Your task to perform on an android device: Show the shopping cart on costco. Search for "macbook" on costco, select the first entry, and add it to the cart. Image 0: 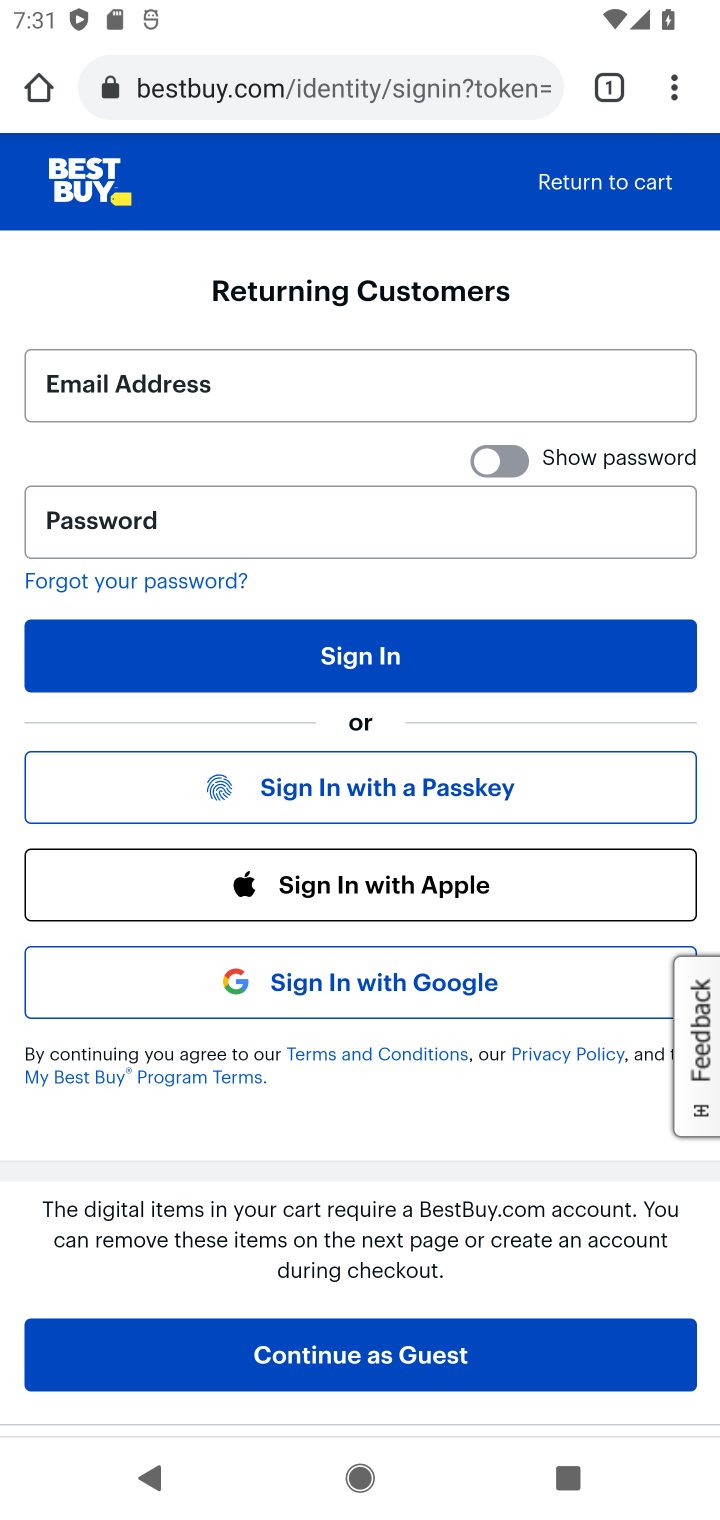
Step 0: press home button
Your task to perform on an android device: Show the shopping cart on costco. Search for "macbook" on costco, select the first entry, and add it to the cart. Image 1: 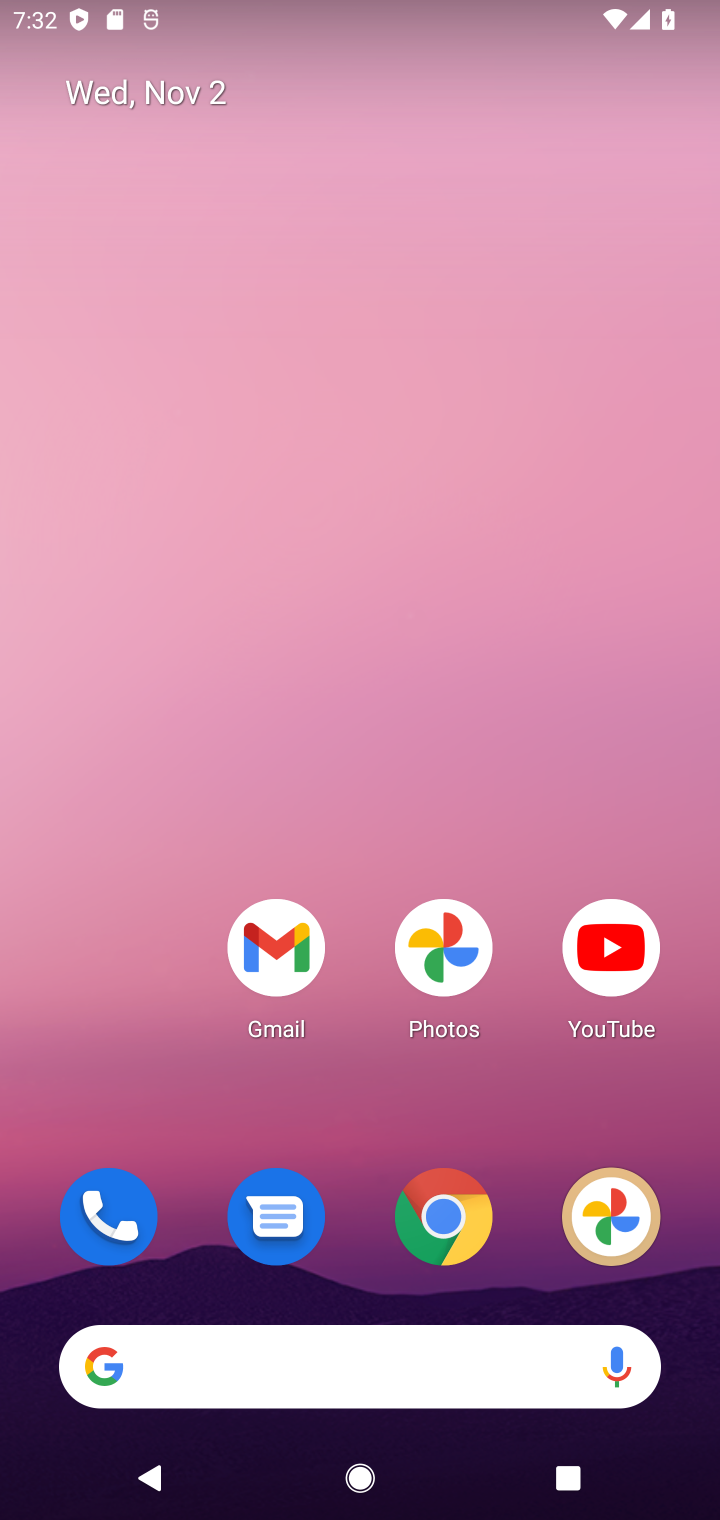
Step 1: click (439, 1234)
Your task to perform on an android device: Show the shopping cart on costco. Search for "macbook" on costco, select the first entry, and add it to the cart. Image 2: 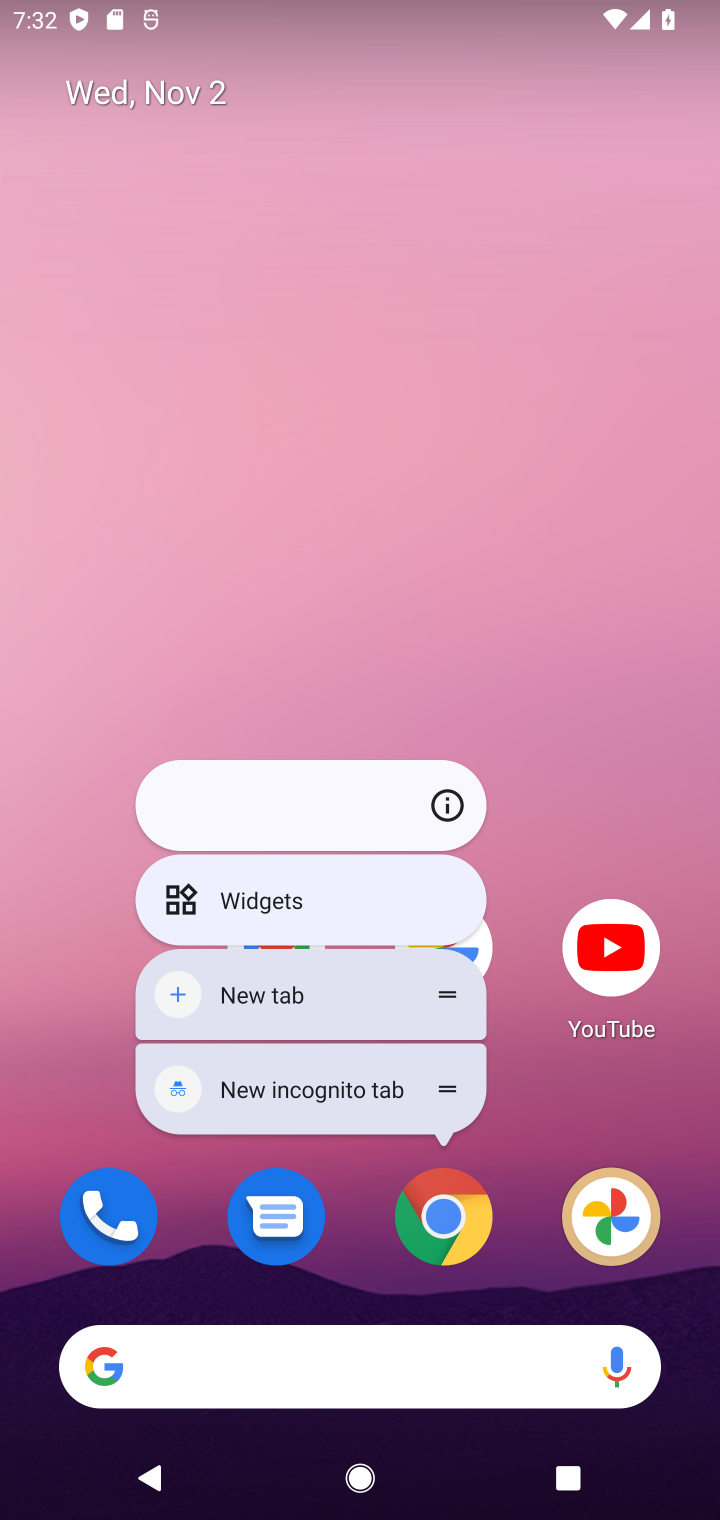
Step 2: click (439, 1234)
Your task to perform on an android device: Show the shopping cart on costco. Search for "macbook" on costco, select the first entry, and add it to the cart. Image 3: 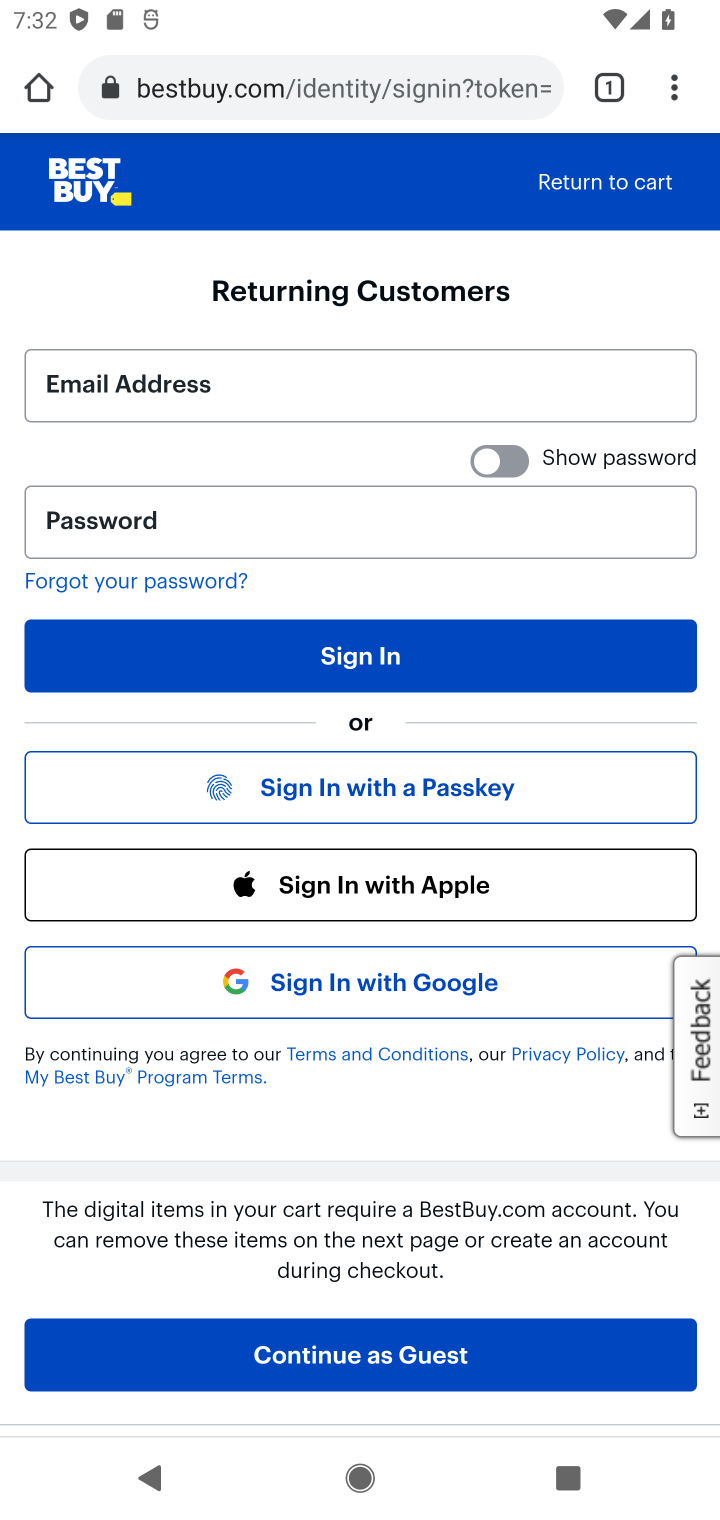
Step 3: click (225, 87)
Your task to perform on an android device: Show the shopping cart on costco. Search for "macbook" on costco, select the first entry, and add it to the cart. Image 4: 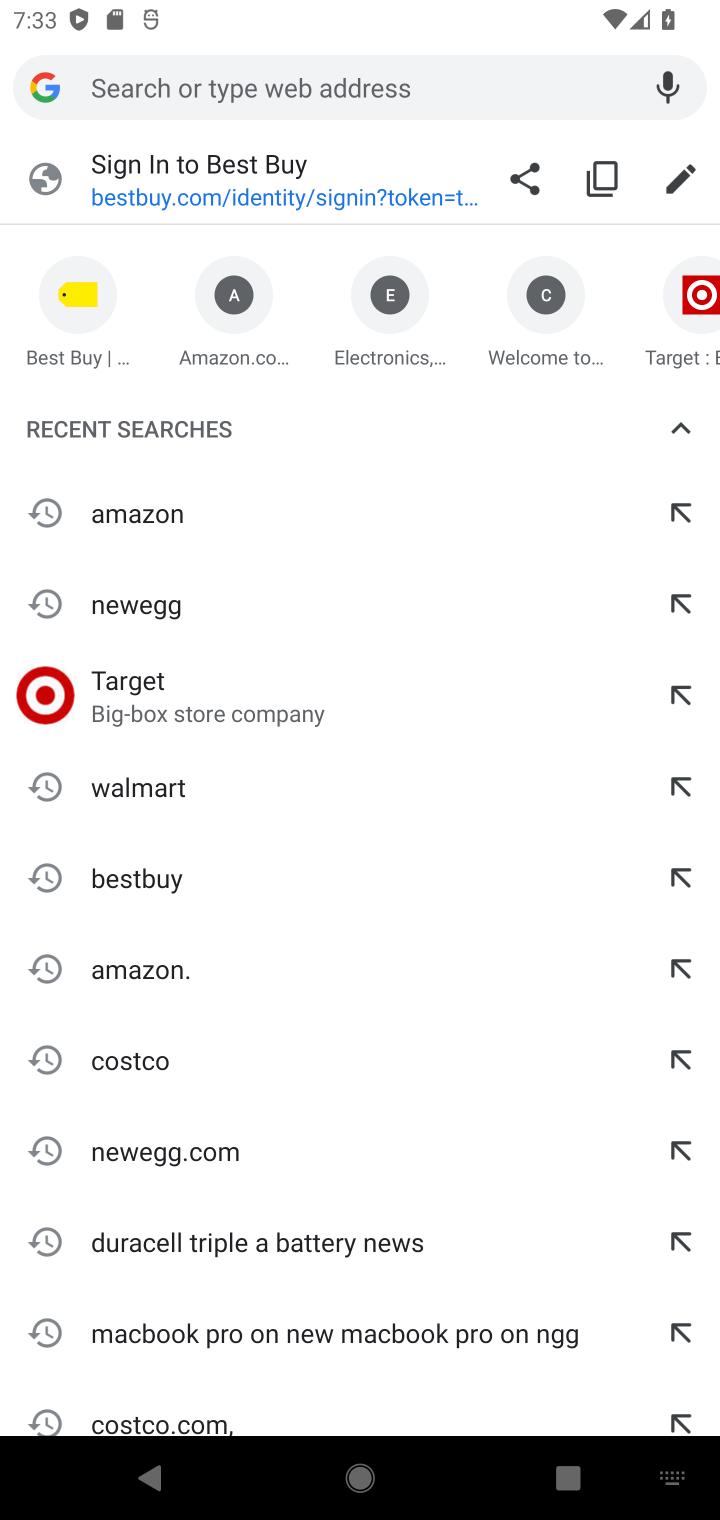
Step 4: type "costco"
Your task to perform on an android device: Show the shopping cart on costco. Search for "macbook" on costco, select the first entry, and add it to the cart. Image 5: 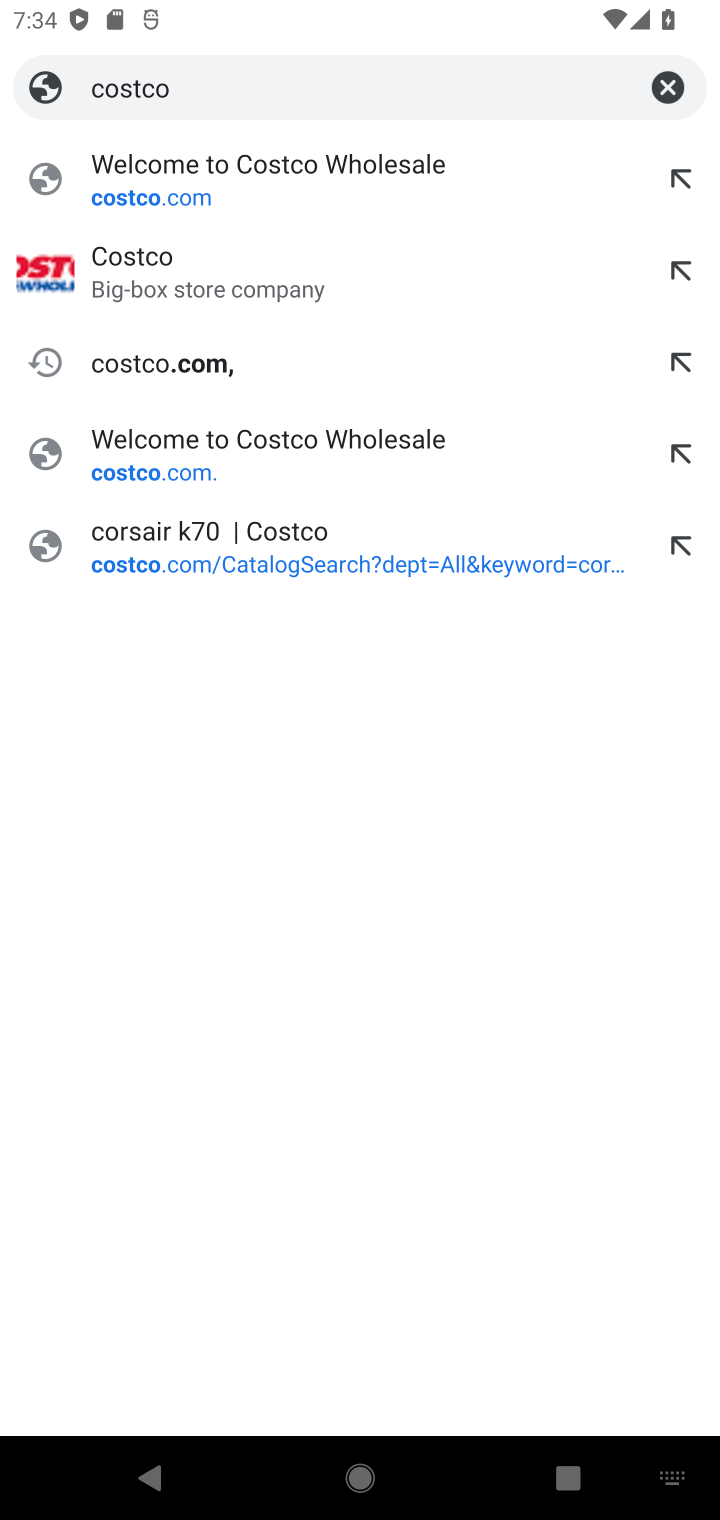
Step 5: click (296, 200)
Your task to perform on an android device: Show the shopping cart on costco. Search for "macbook" on costco, select the first entry, and add it to the cart. Image 6: 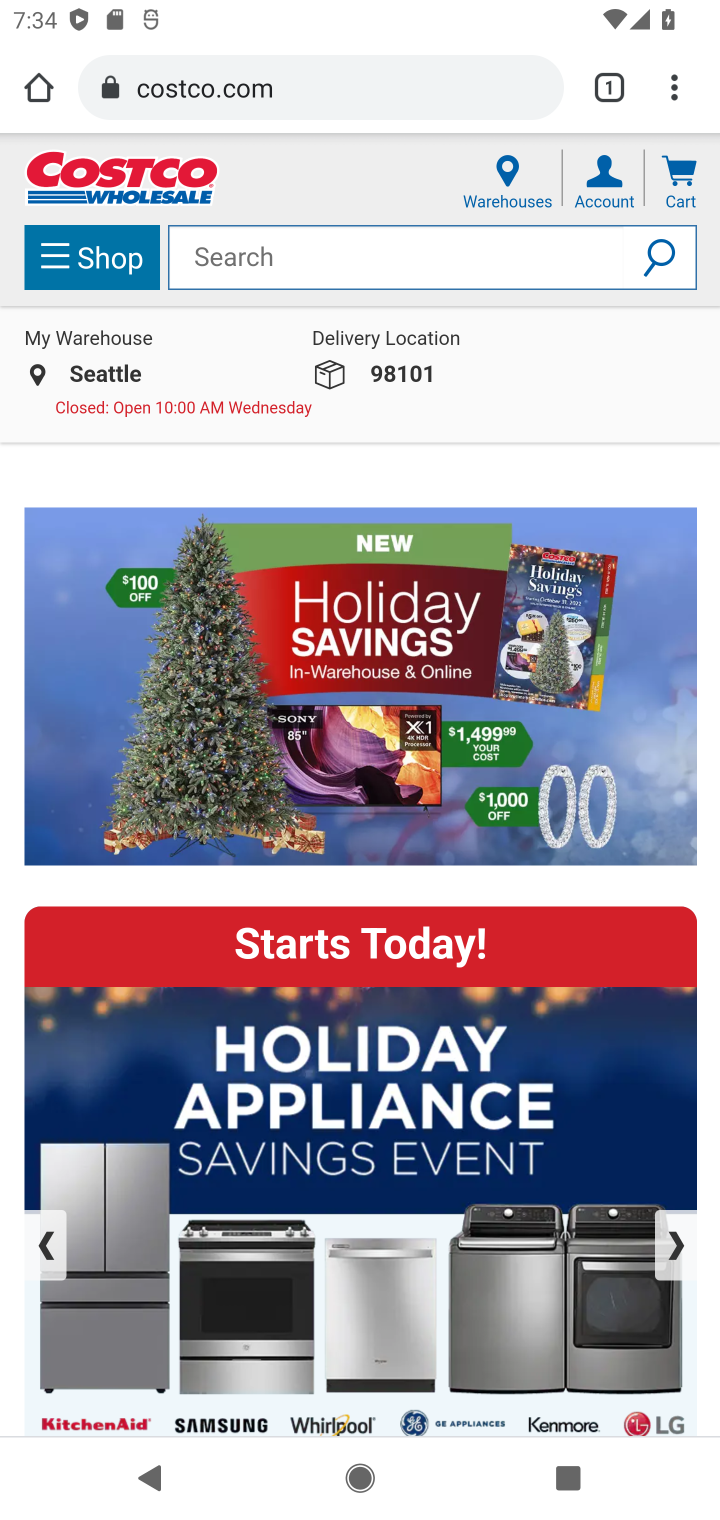
Step 6: click (409, 252)
Your task to perform on an android device: Show the shopping cart on costco. Search for "macbook" on costco, select the first entry, and add it to the cart. Image 7: 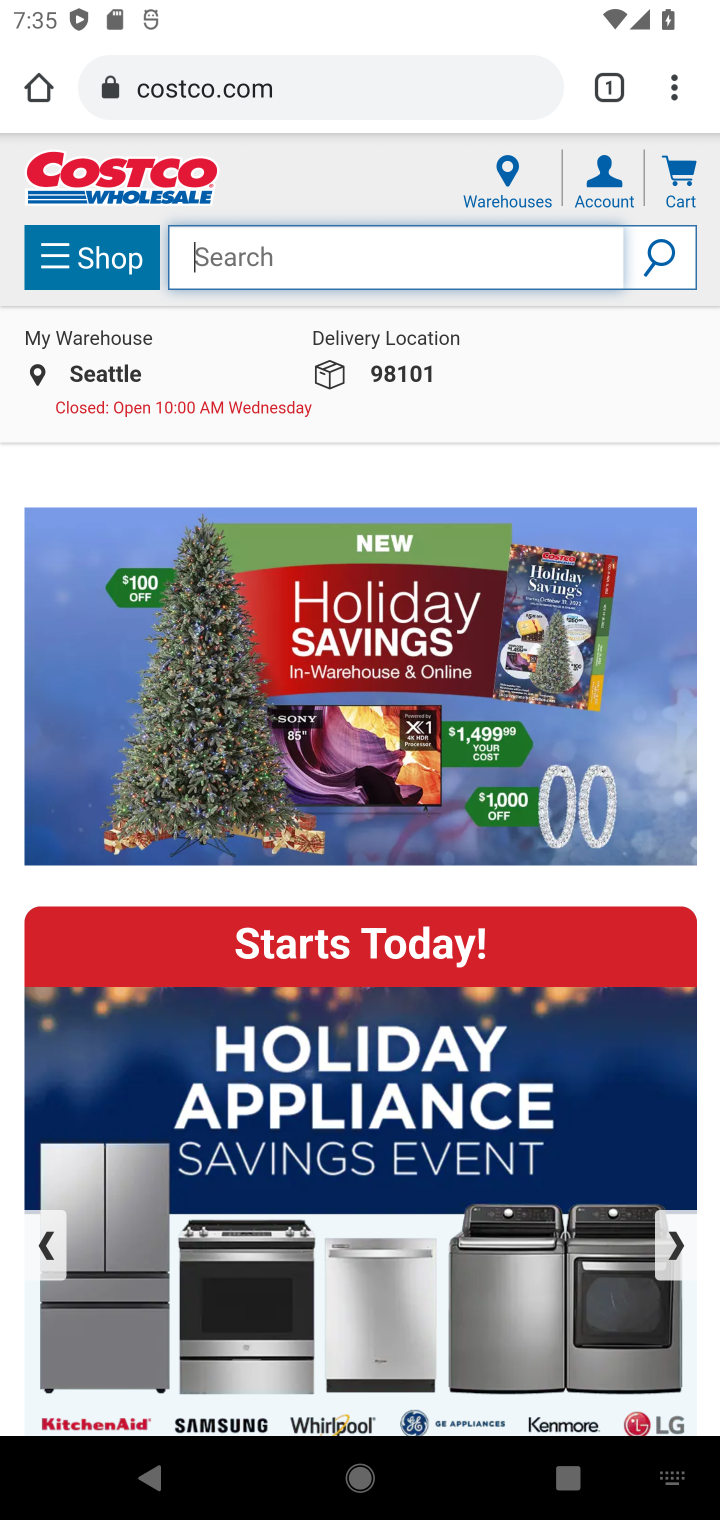
Step 7: type "macbook"
Your task to perform on an android device: Show the shopping cart on costco. Search for "macbook" on costco, select the first entry, and add it to the cart. Image 8: 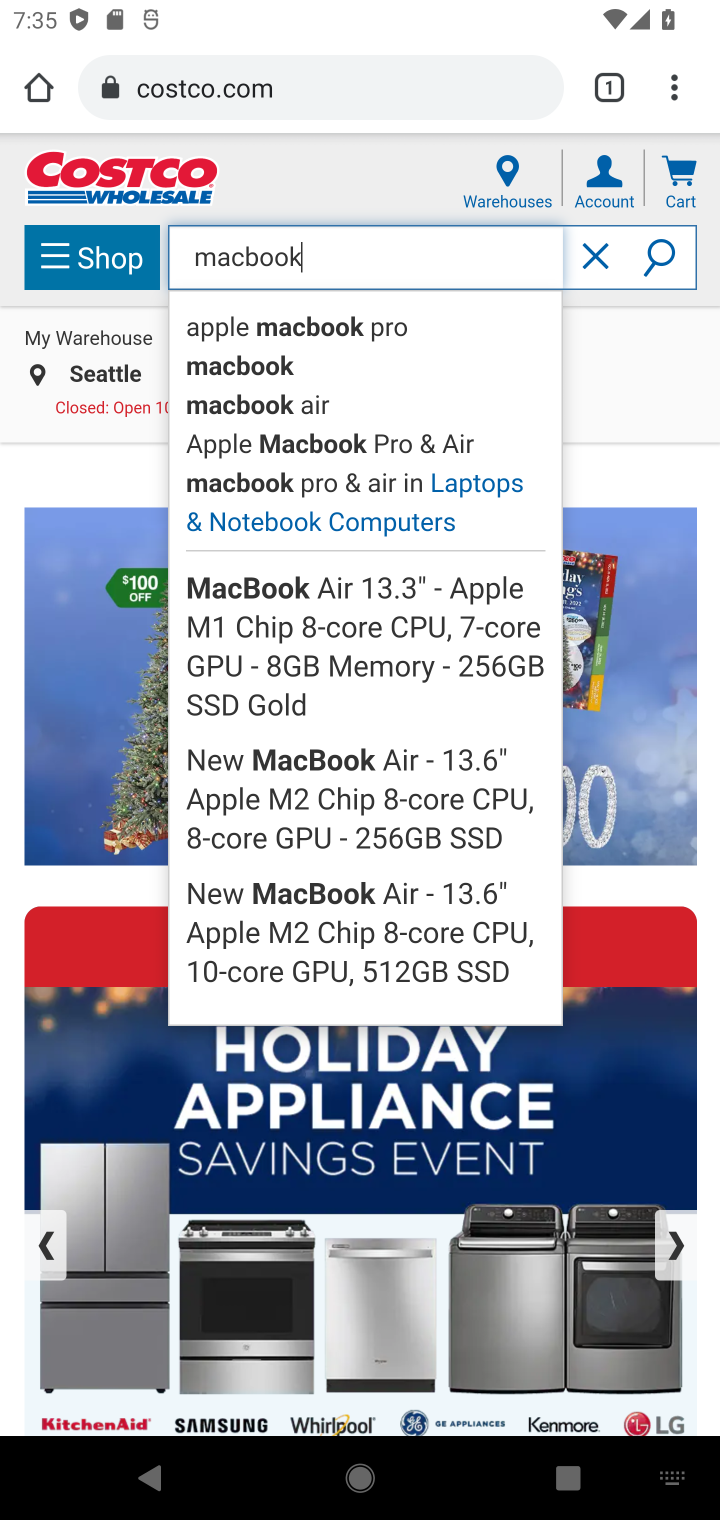
Step 8: press enter
Your task to perform on an android device: Show the shopping cart on costco. Search for "macbook" on costco, select the first entry, and add it to the cart. Image 9: 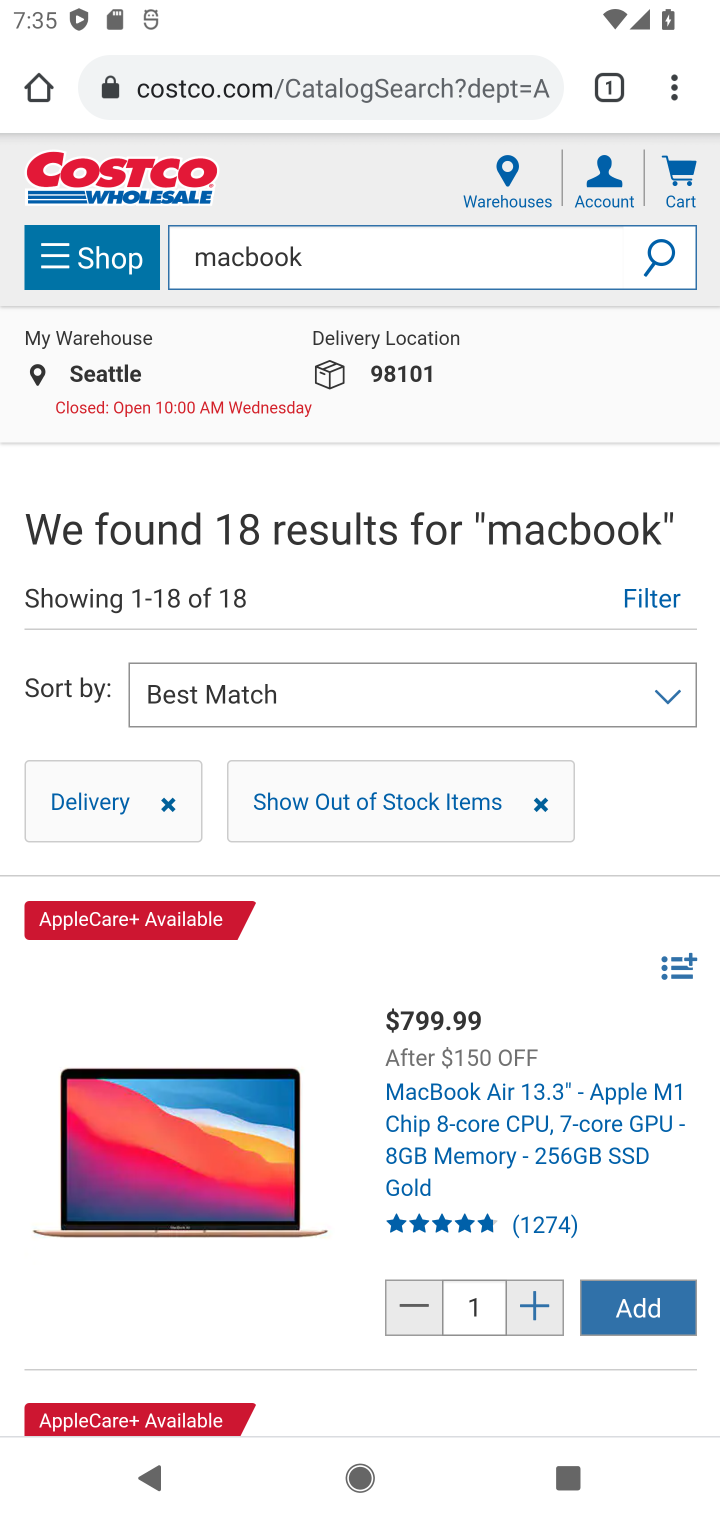
Step 9: click (435, 1148)
Your task to perform on an android device: Show the shopping cart on costco. Search for "macbook" on costco, select the first entry, and add it to the cart. Image 10: 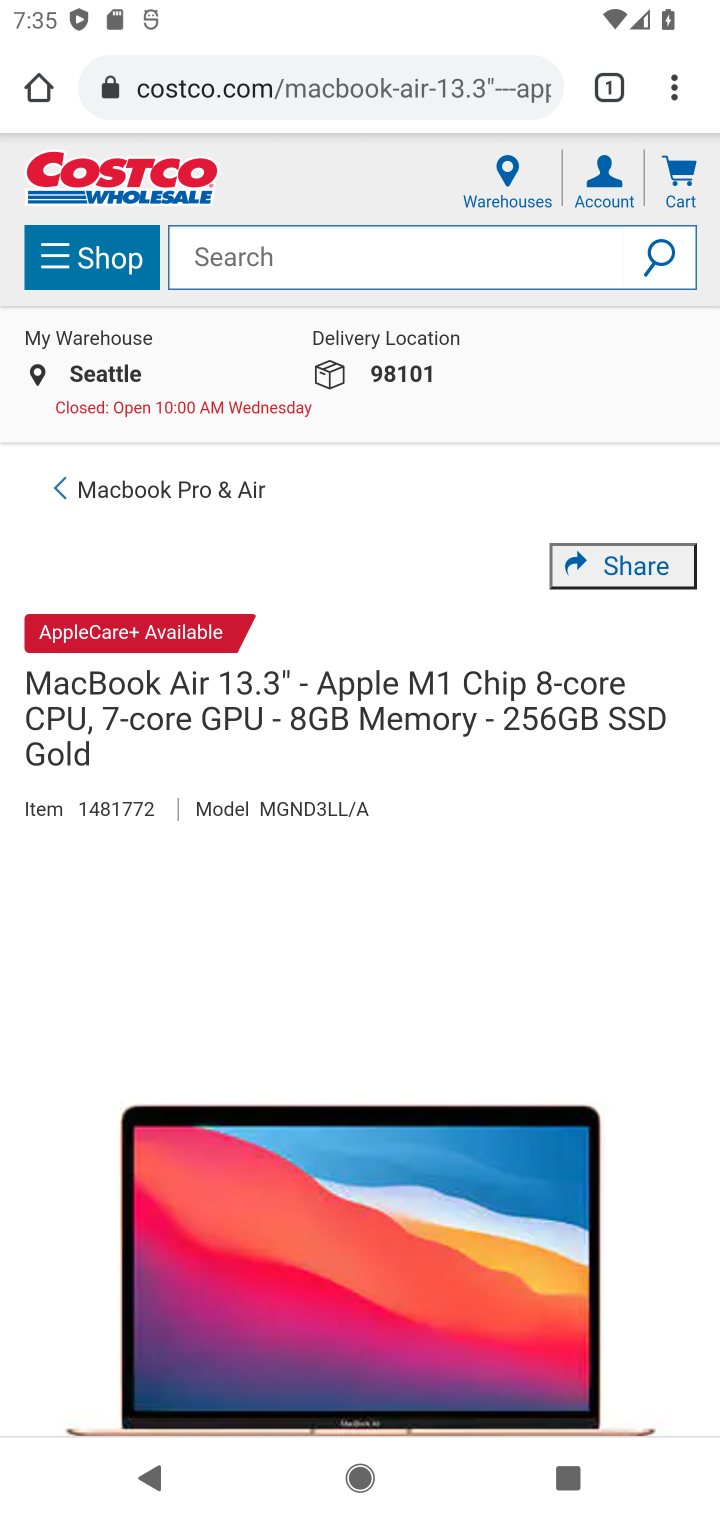
Step 10: drag from (397, 1235) to (29, 99)
Your task to perform on an android device: Show the shopping cart on costco. Search for "macbook" on costco, select the first entry, and add it to the cart. Image 11: 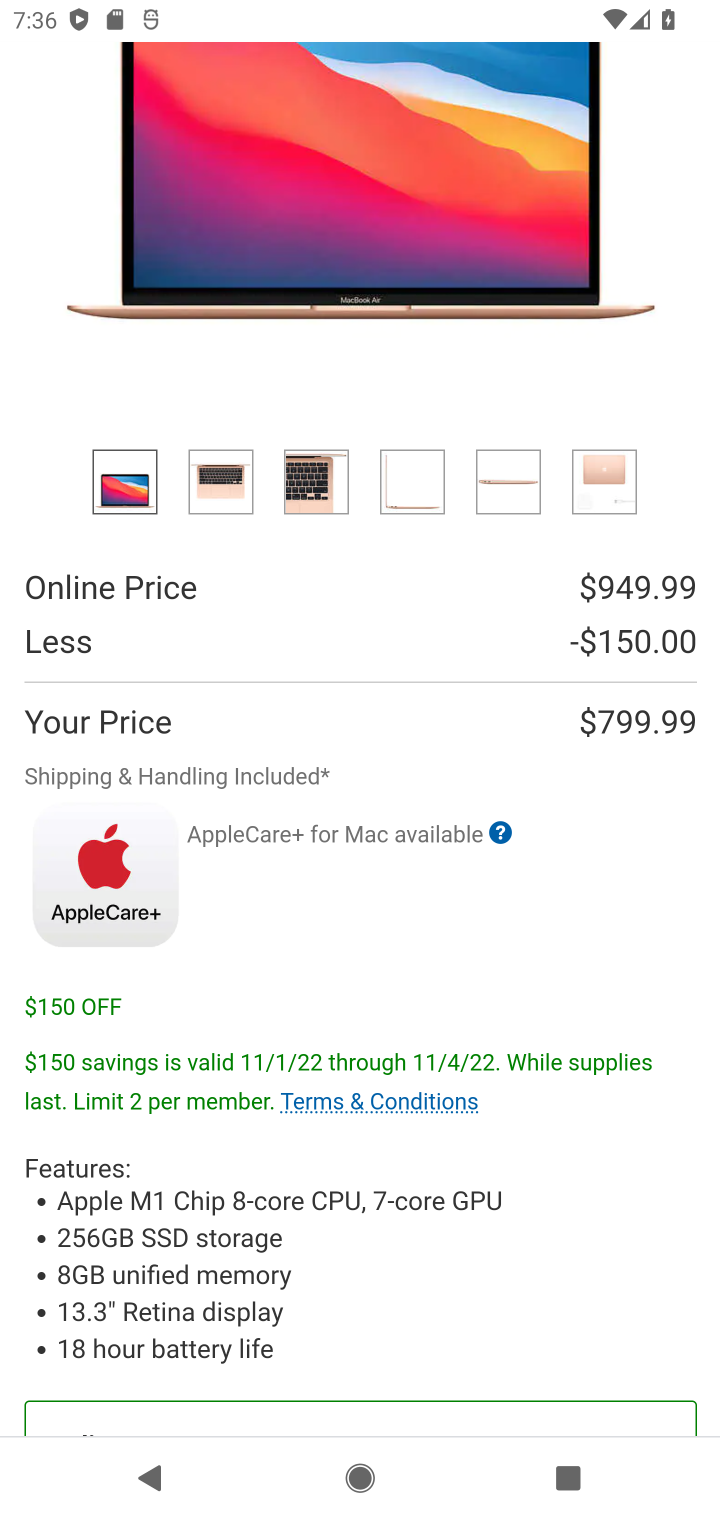
Step 11: drag from (533, 1301) to (271, 62)
Your task to perform on an android device: Show the shopping cart on costco. Search for "macbook" on costco, select the first entry, and add it to the cart. Image 12: 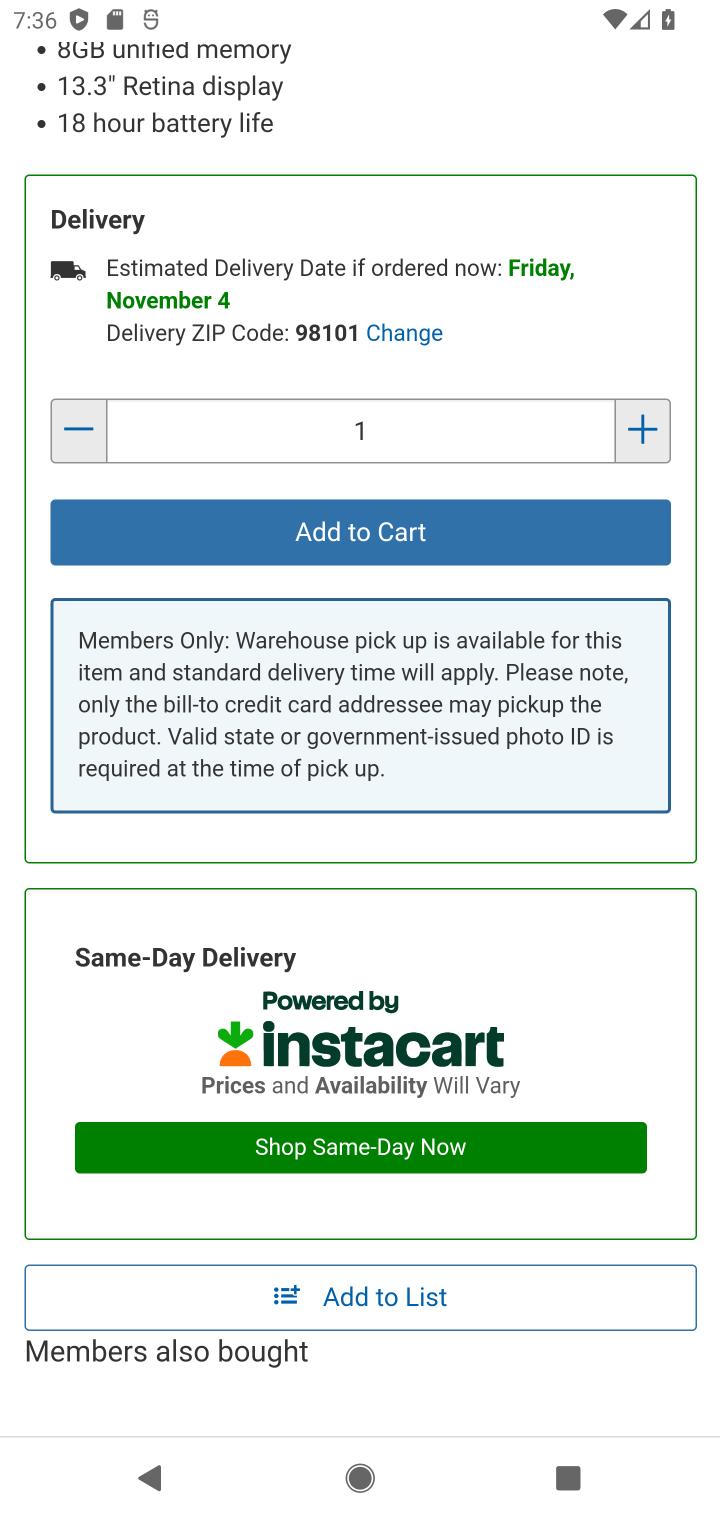
Step 12: click (421, 542)
Your task to perform on an android device: Show the shopping cart on costco. Search for "macbook" on costco, select the first entry, and add it to the cart. Image 13: 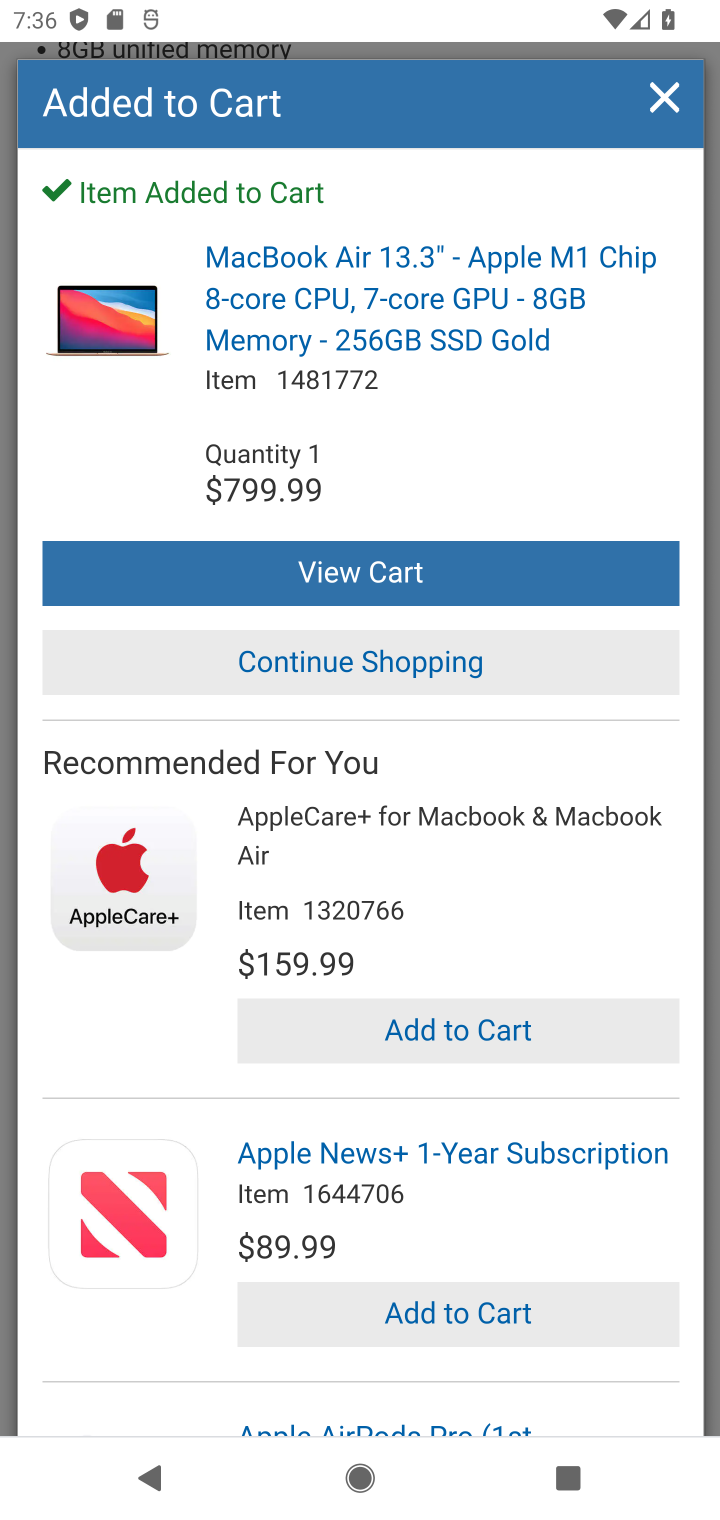
Step 13: task complete